Your task to perform on an android device: Open Wikipedia Image 0: 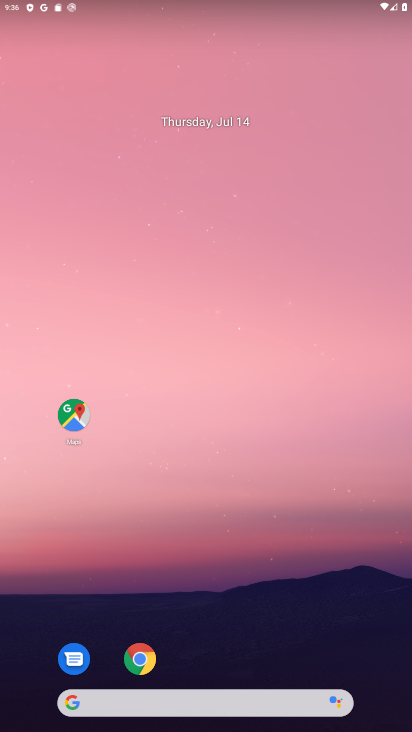
Step 0: drag from (323, 585) to (263, 131)
Your task to perform on an android device: Open Wikipedia Image 1: 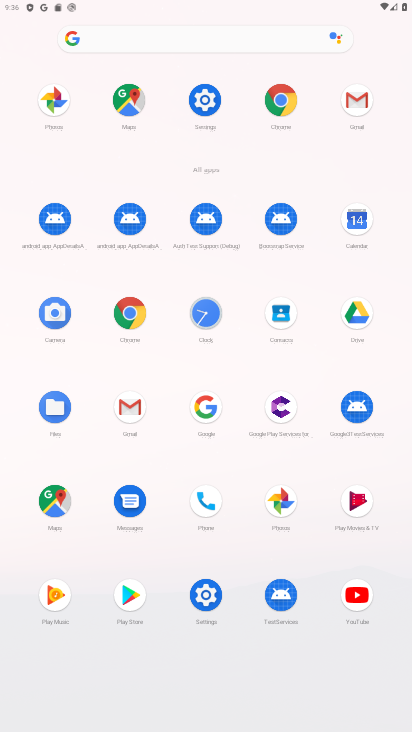
Step 1: click (279, 106)
Your task to perform on an android device: Open Wikipedia Image 2: 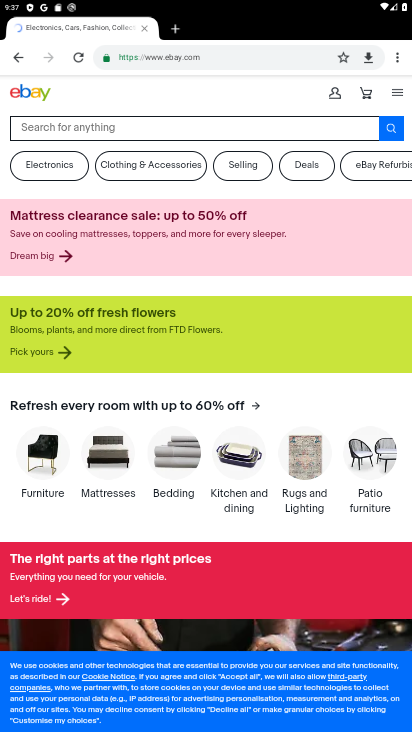
Step 2: click (271, 57)
Your task to perform on an android device: Open Wikipedia Image 3: 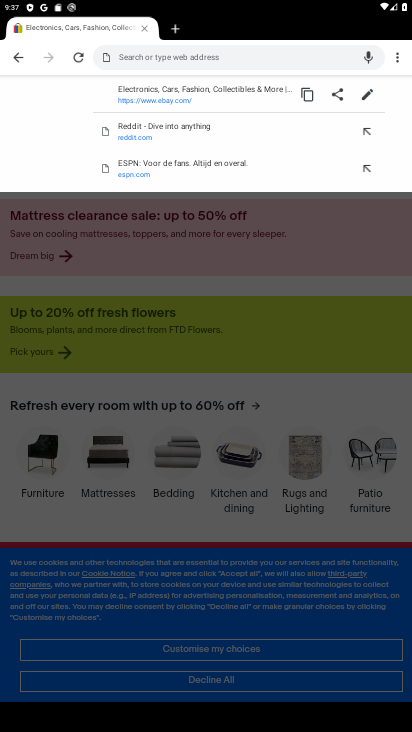
Step 3: type "wikipedia"
Your task to perform on an android device: Open Wikipedia Image 4: 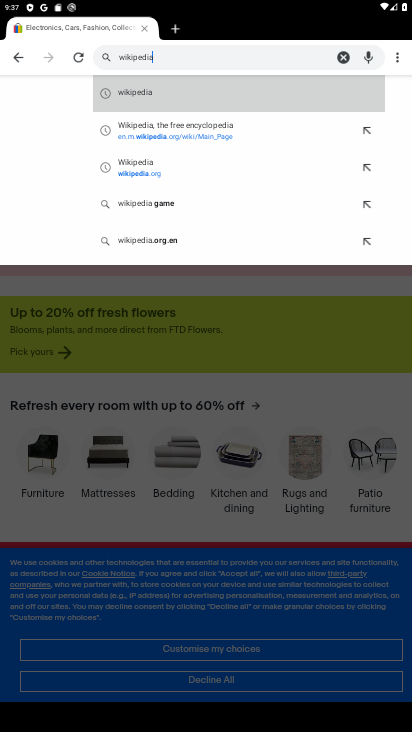
Step 4: click (126, 169)
Your task to perform on an android device: Open Wikipedia Image 5: 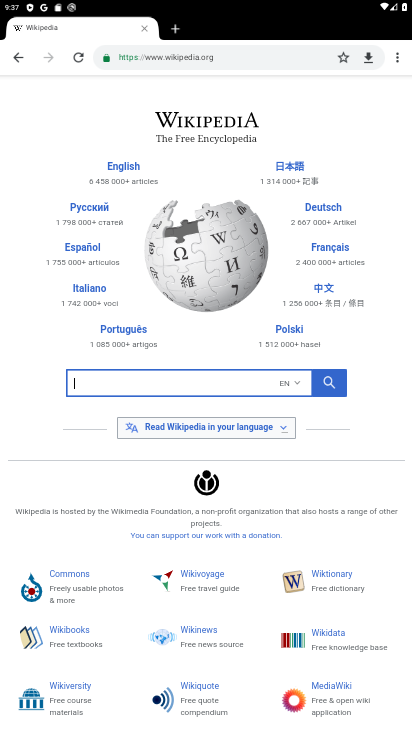
Step 5: task complete